Your task to perform on an android device: toggle improve location accuracy Image 0: 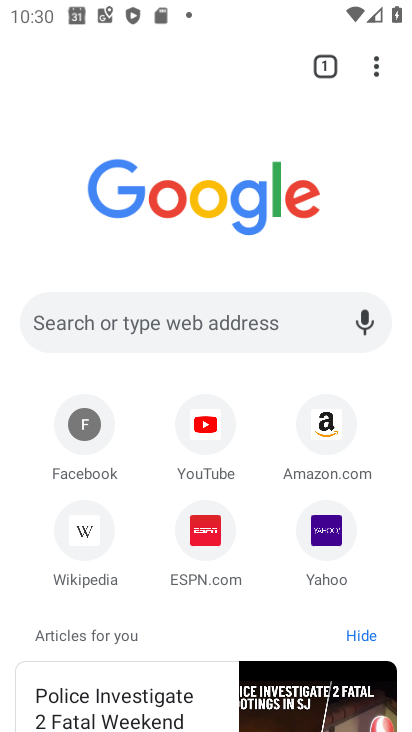
Step 0: press home button
Your task to perform on an android device: toggle improve location accuracy Image 1: 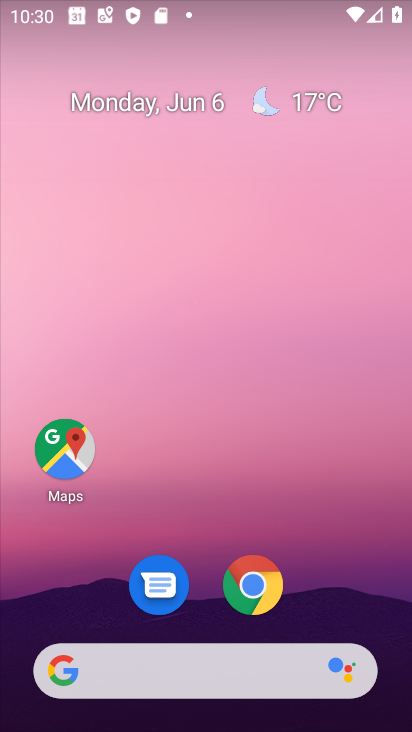
Step 1: drag from (300, 533) to (287, 37)
Your task to perform on an android device: toggle improve location accuracy Image 2: 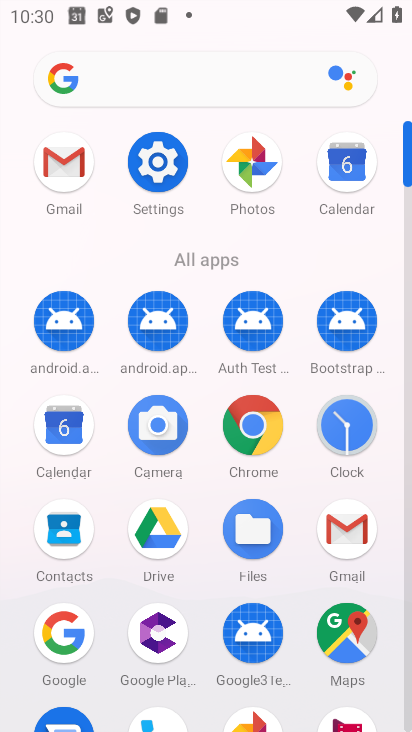
Step 2: click (174, 147)
Your task to perform on an android device: toggle improve location accuracy Image 3: 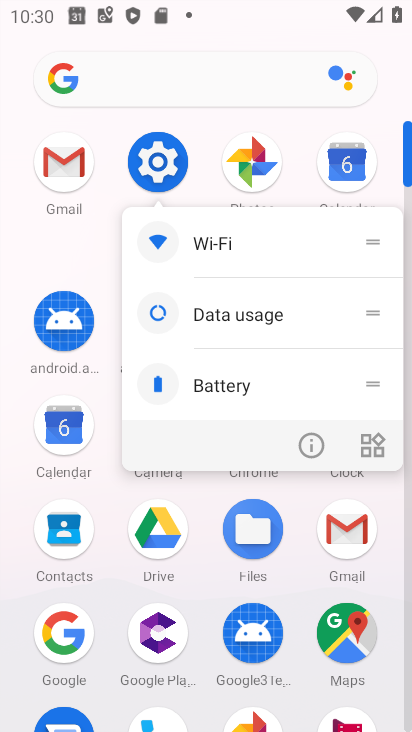
Step 3: click (164, 155)
Your task to perform on an android device: toggle improve location accuracy Image 4: 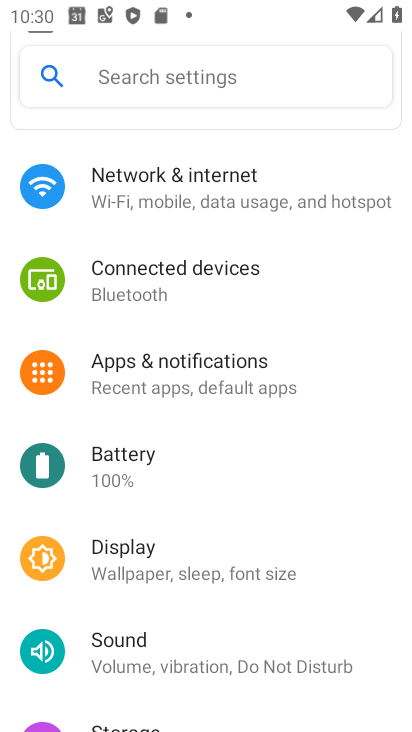
Step 4: drag from (233, 551) to (269, 200)
Your task to perform on an android device: toggle improve location accuracy Image 5: 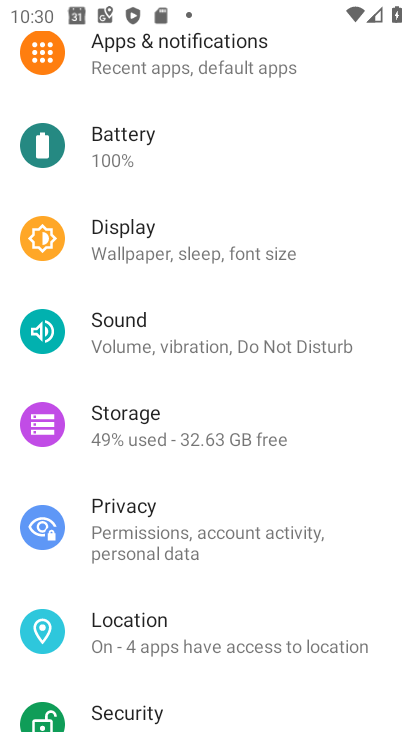
Step 5: click (195, 633)
Your task to perform on an android device: toggle improve location accuracy Image 6: 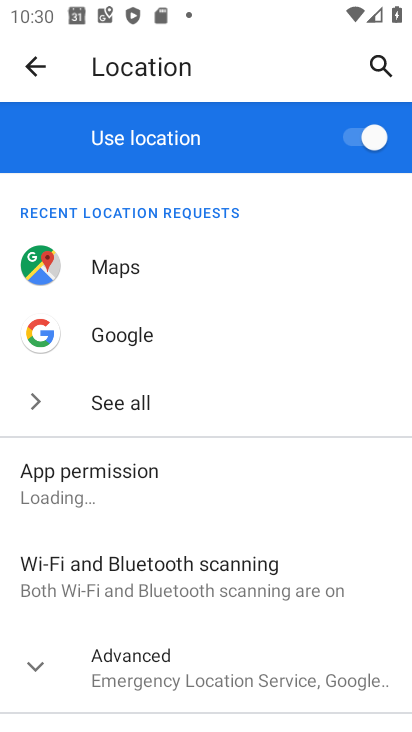
Step 6: drag from (227, 489) to (216, 194)
Your task to perform on an android device: toggle improve location accuracy Image 7: 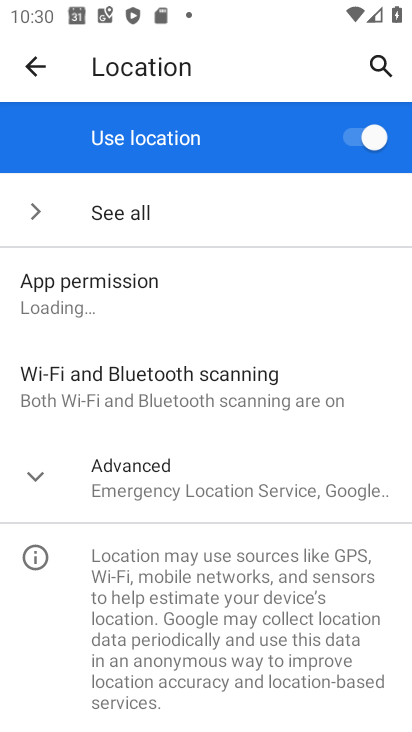
Step 7: click (37, 468)
Your task to perform on an android device: toggle improve location accuracy Image 8: 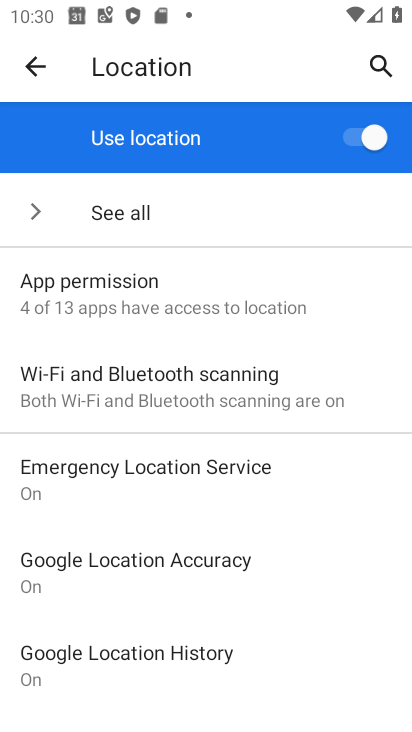
Step 8: click (209, 575)
Your task to perform on an android device: toggle improve location accuracy Image 9: 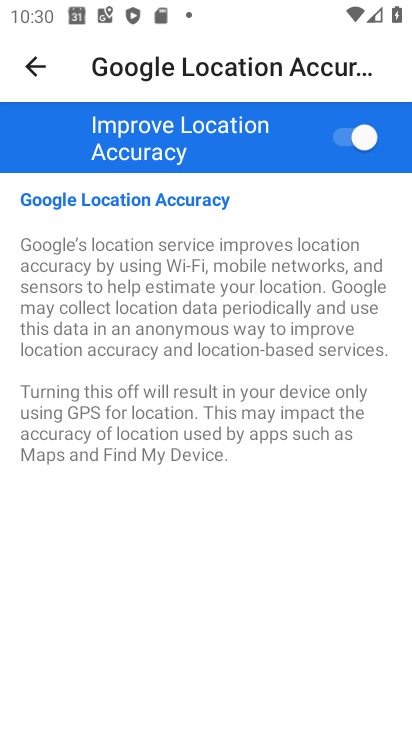
Step 9: click (357, 137)
Your task to perform on an android device: toggle improve location accuracy Image 10: 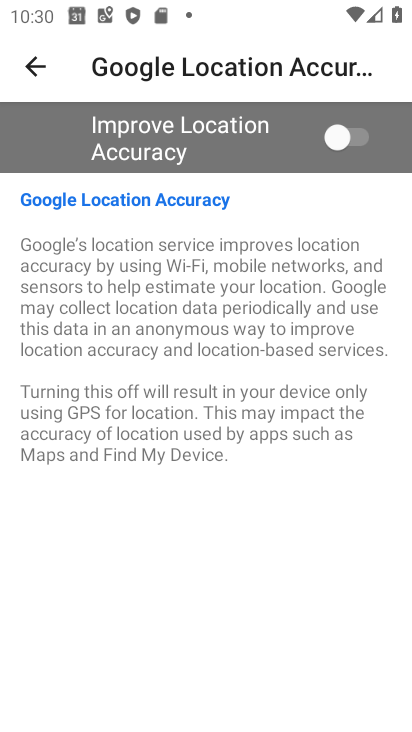
Step 10: task complete